Your task to perform on an android device: Search for the best rated headphones on amazon.com Image 0: 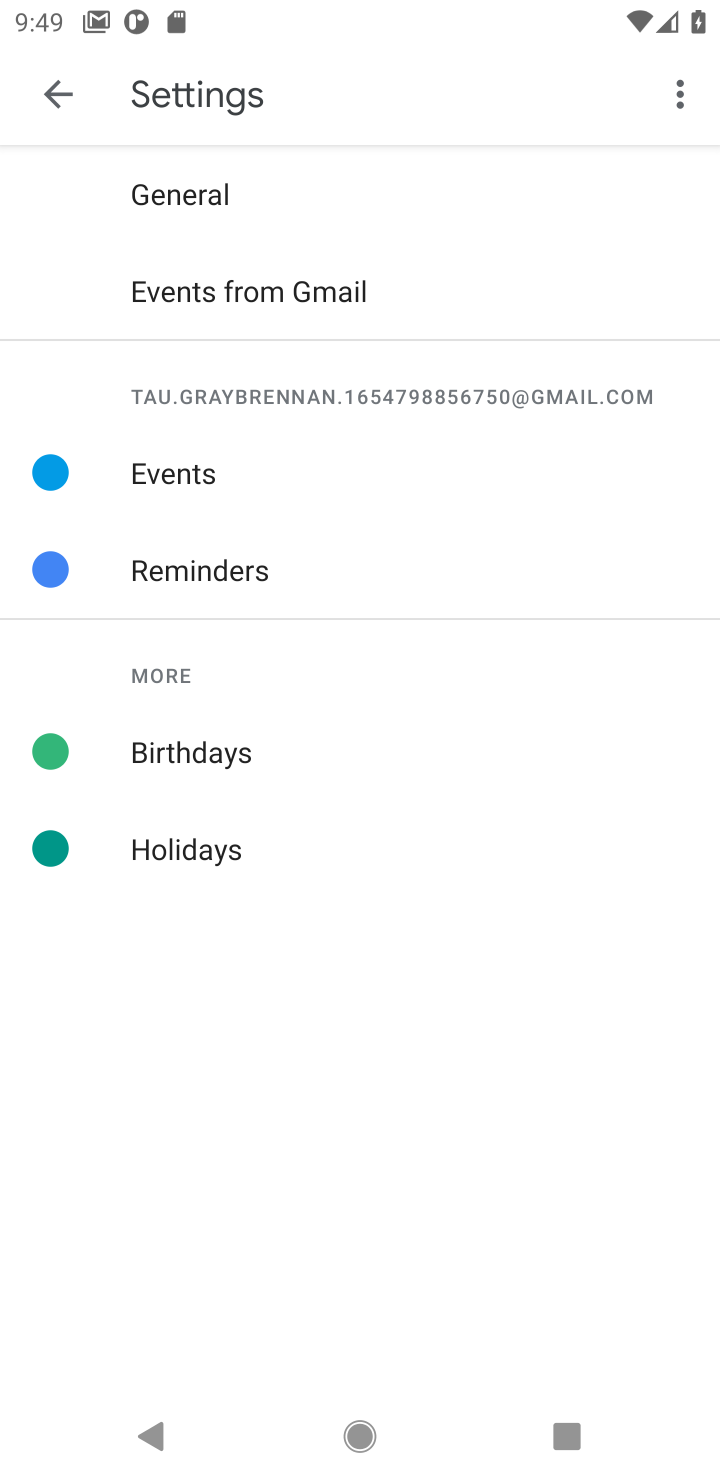
Step 0: press home button
Your task to perform on an android device: Search for the best rated headphones on amazon.com Image 1: 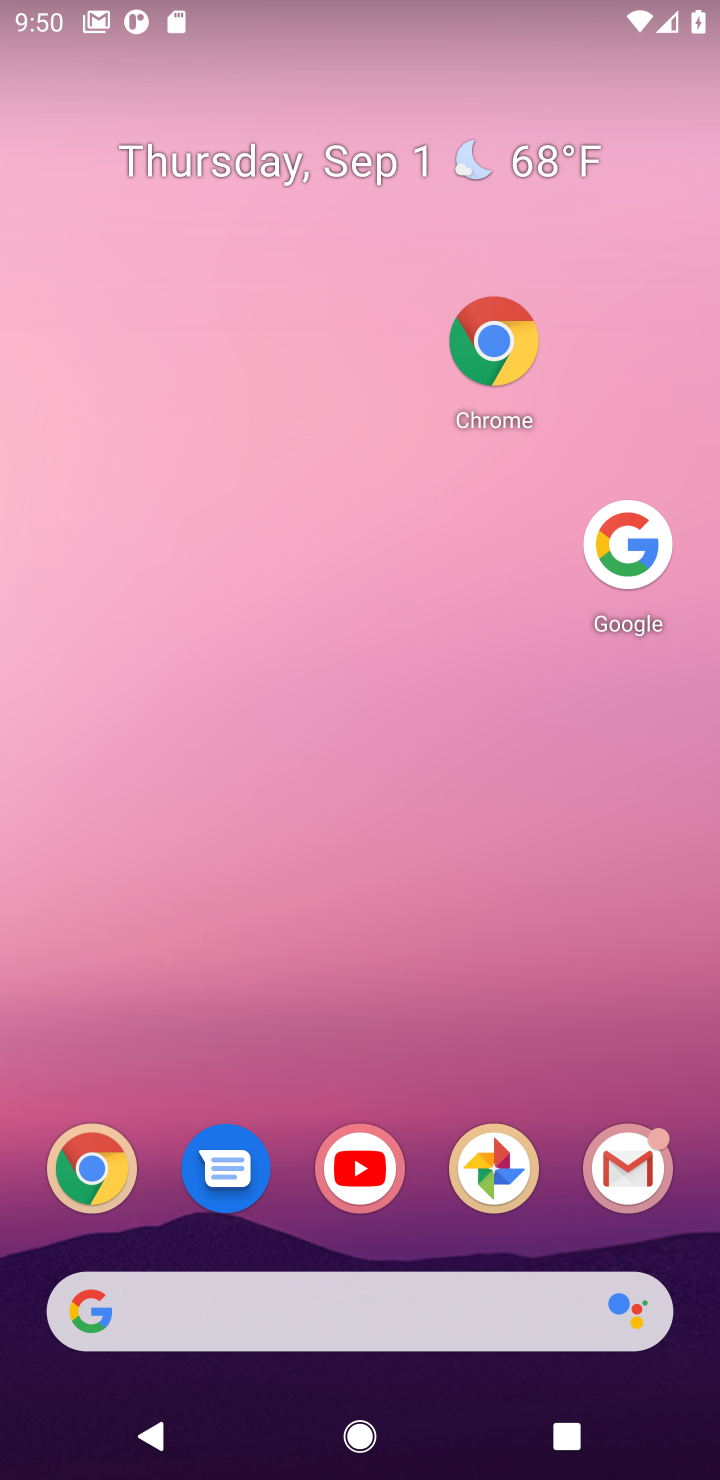
Step 1: drag from (322, 1057) to (335, 475)
Your task to perform on an android device: Search for the best rated headphones on amazon.com Image 2: 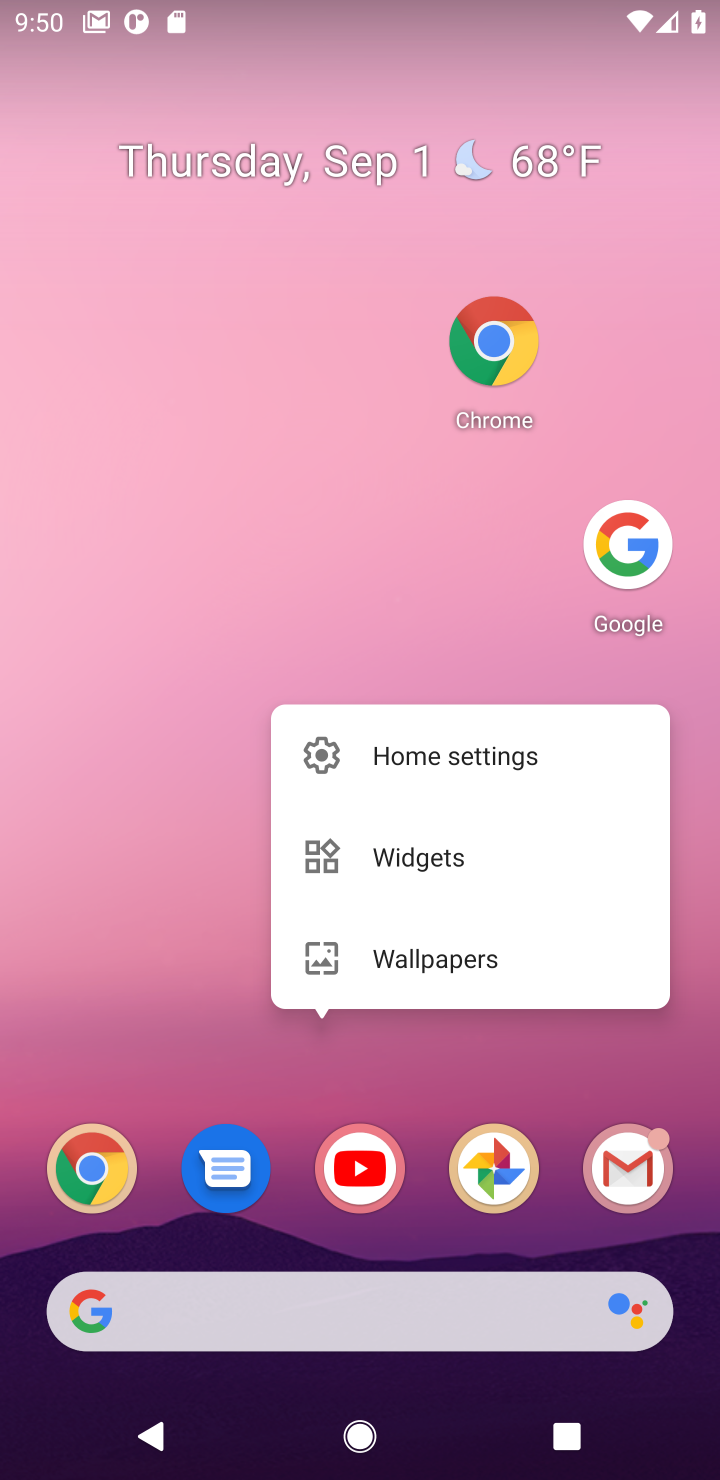
Step 2: click (639, 515)
Your task to perform on an android device: Search for the best rated headphones on amazon.com Image 3: 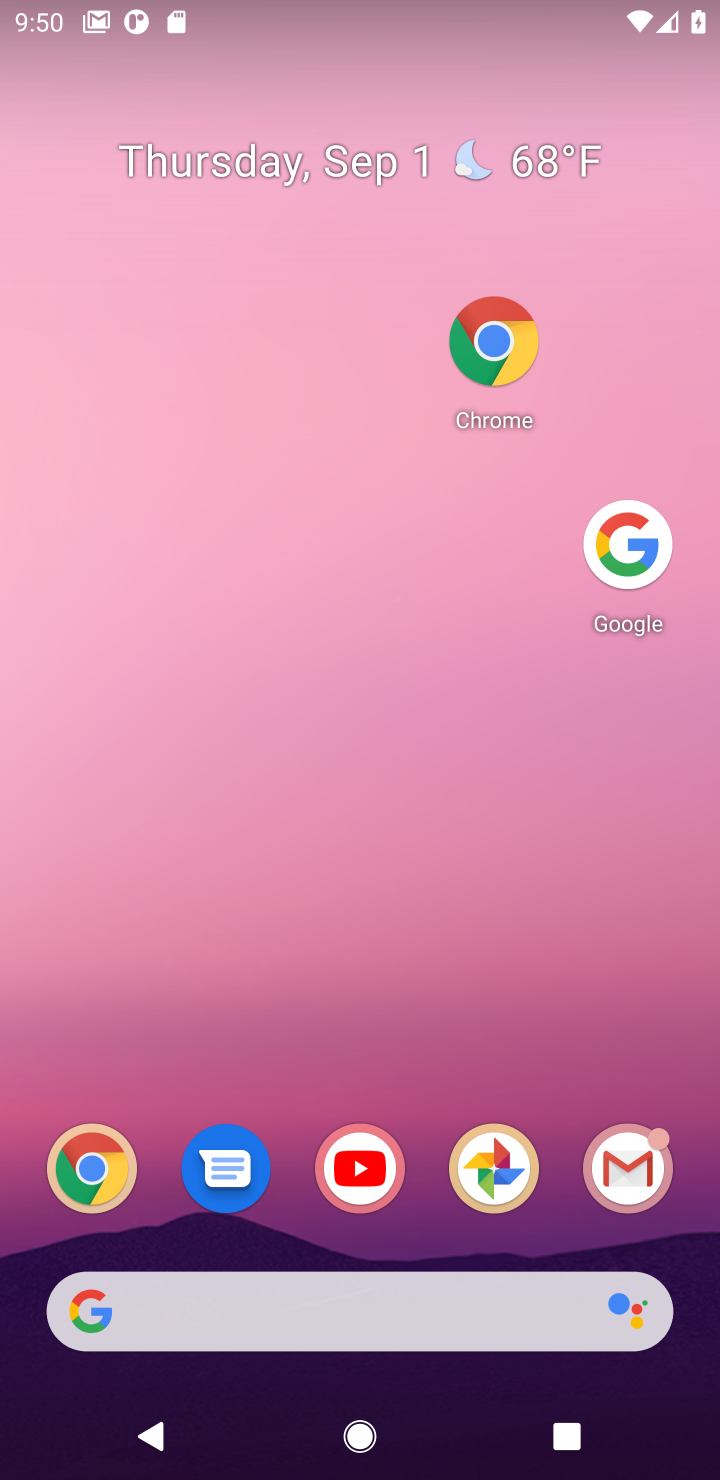
Step 3: click (615, 546)
Your task to perform on an android device: Search for the best rated headphones on amazon.com Image 4: 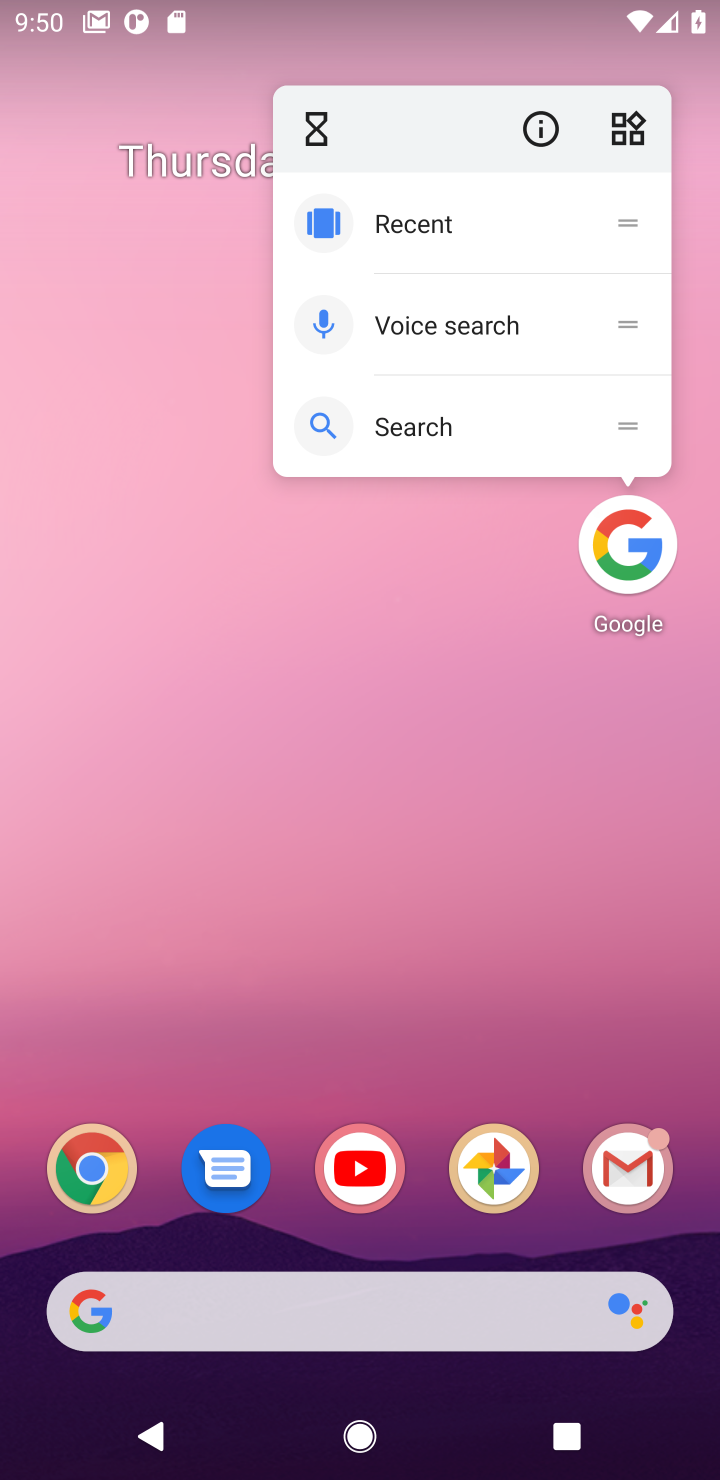
Step 4: click (615, 546)
Your task to perform on an android device: Search for the best rated headphones on amazon.com Image 5: 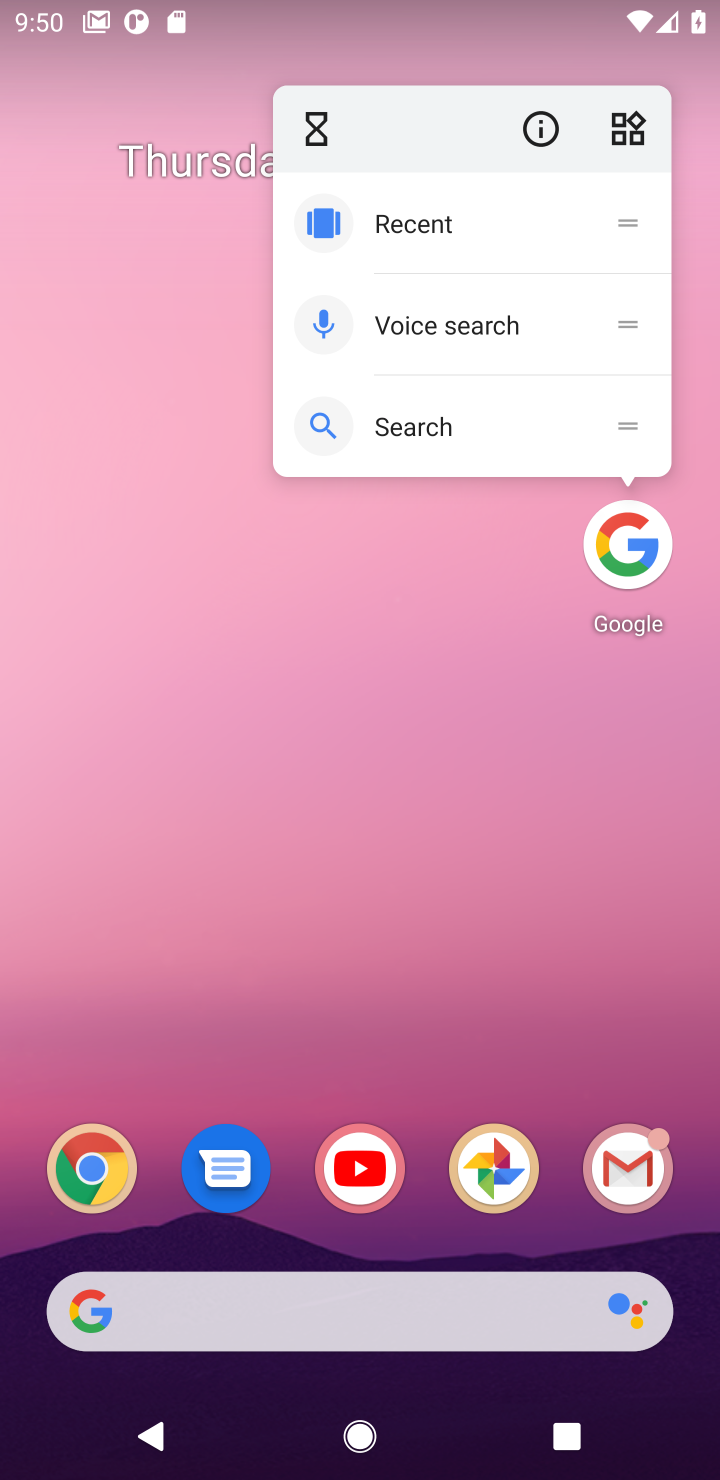
Step 5: click (601, 553)
Your task to perform on an android device: Search for the best rated headphones on amazon.com Image 6: 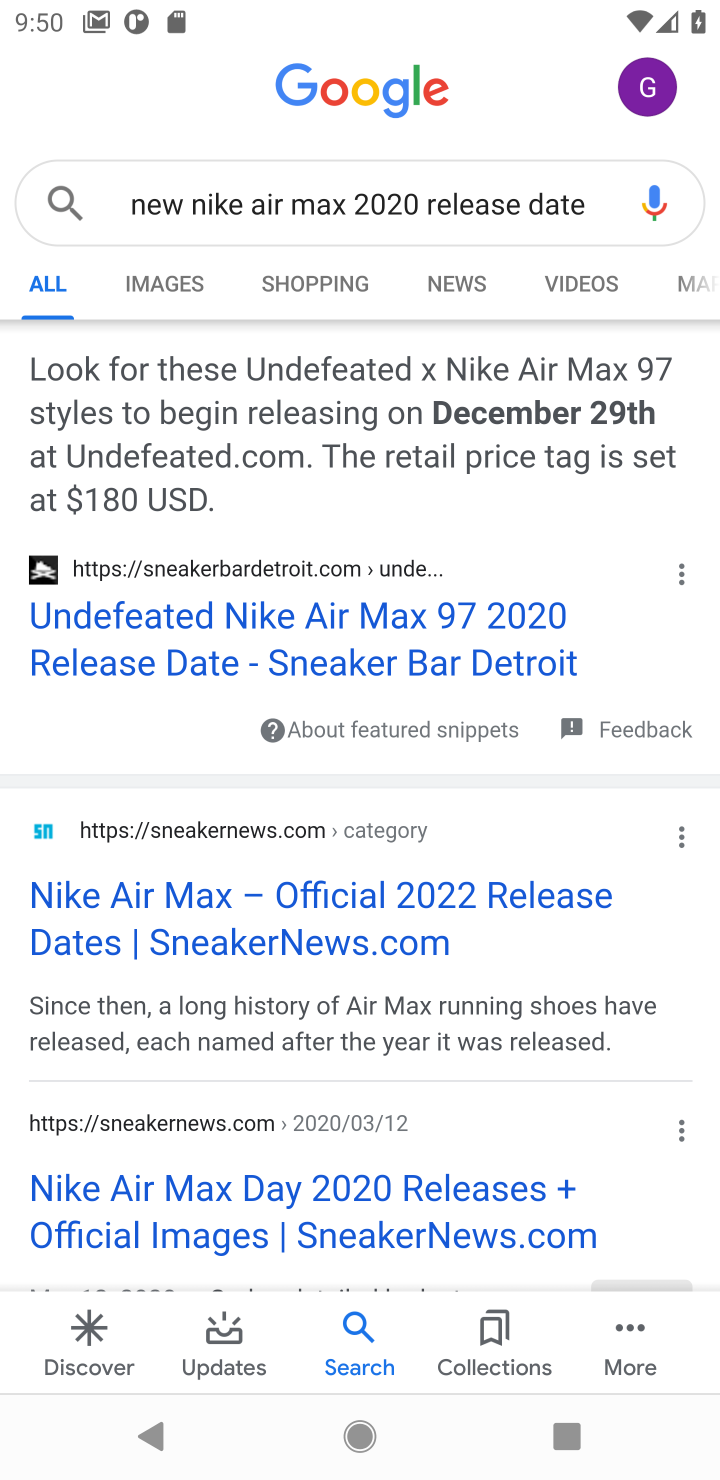
Step 6: click (577, 180)
Your task to perform on an android device: Search for the best rated headphones on amazon.com Image 7: 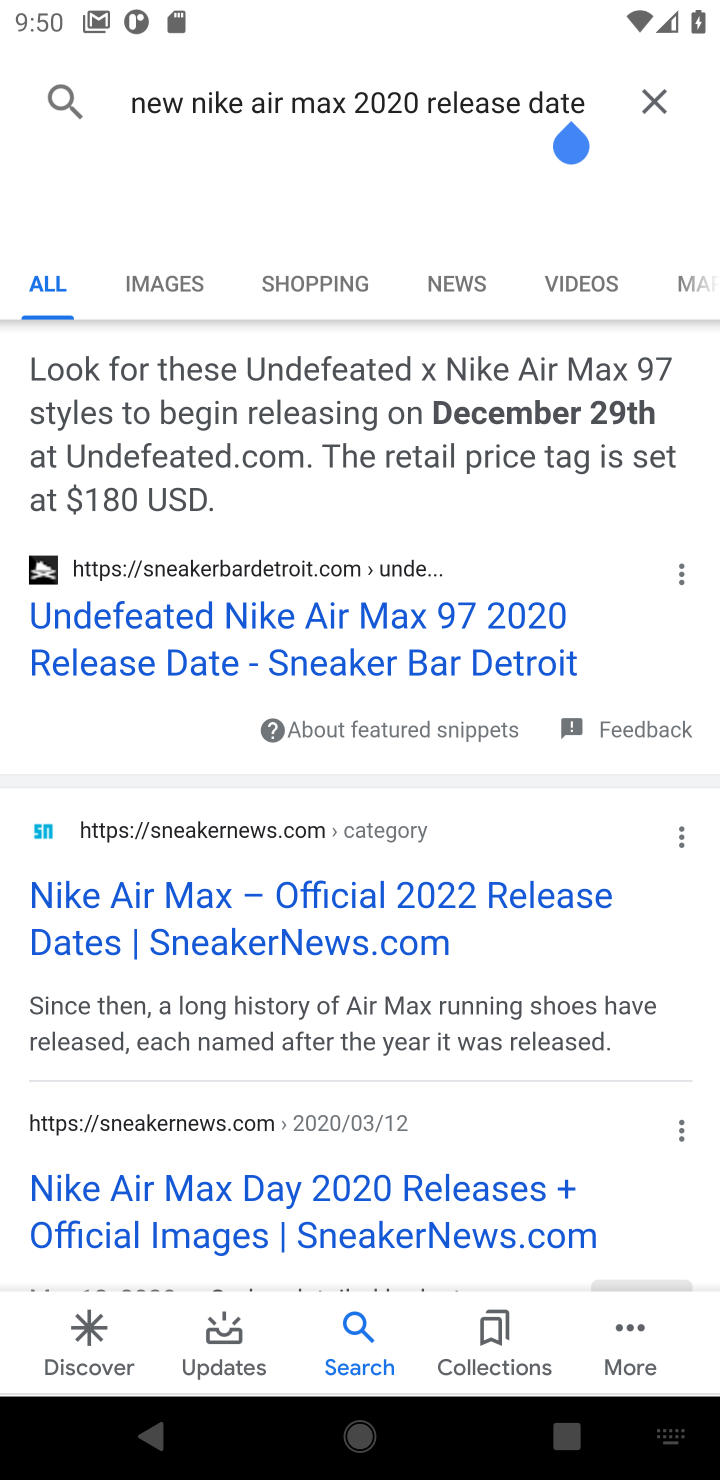
Step 7: click (652, 102)
Your task to perform on an android device: Search for the best rated headphones on amazon.com Image 8: 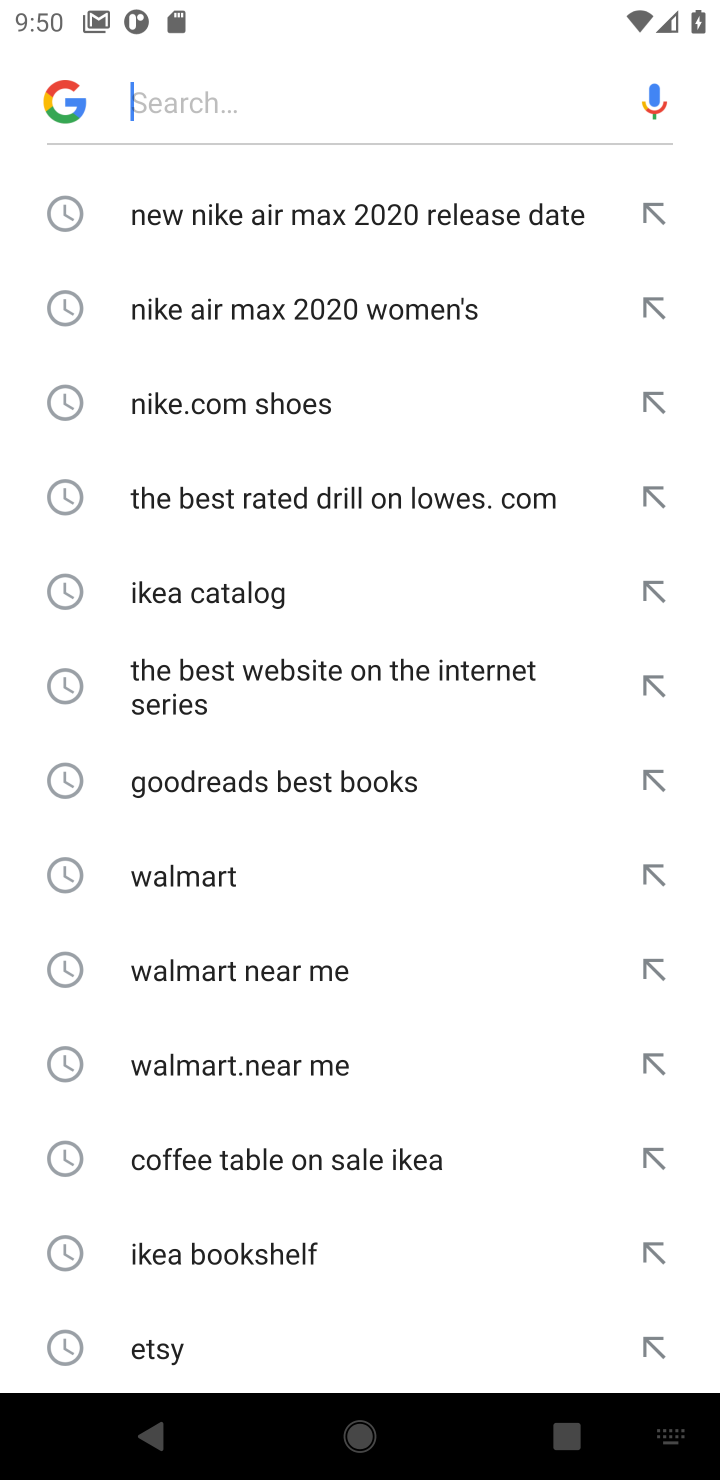
Step 8: drag from (301, 1148) to (463, 339)
Your task to perform on an android device: Search for the best rated headphones on amazon.com Image 9: 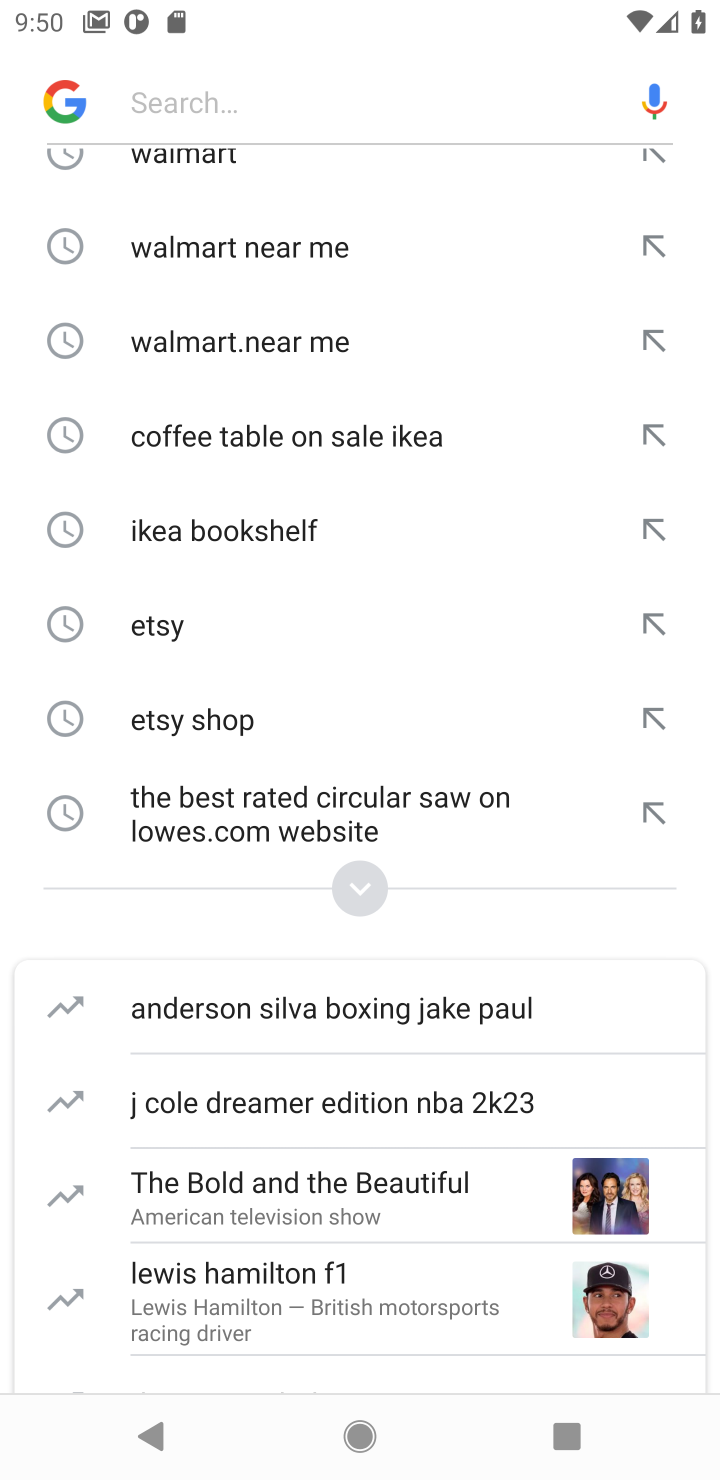
Step 9: drag from (191, 1058) to (210, 858)
Your task to perform on an android device: Search for the best rated headphones on amazon.com Image 10: 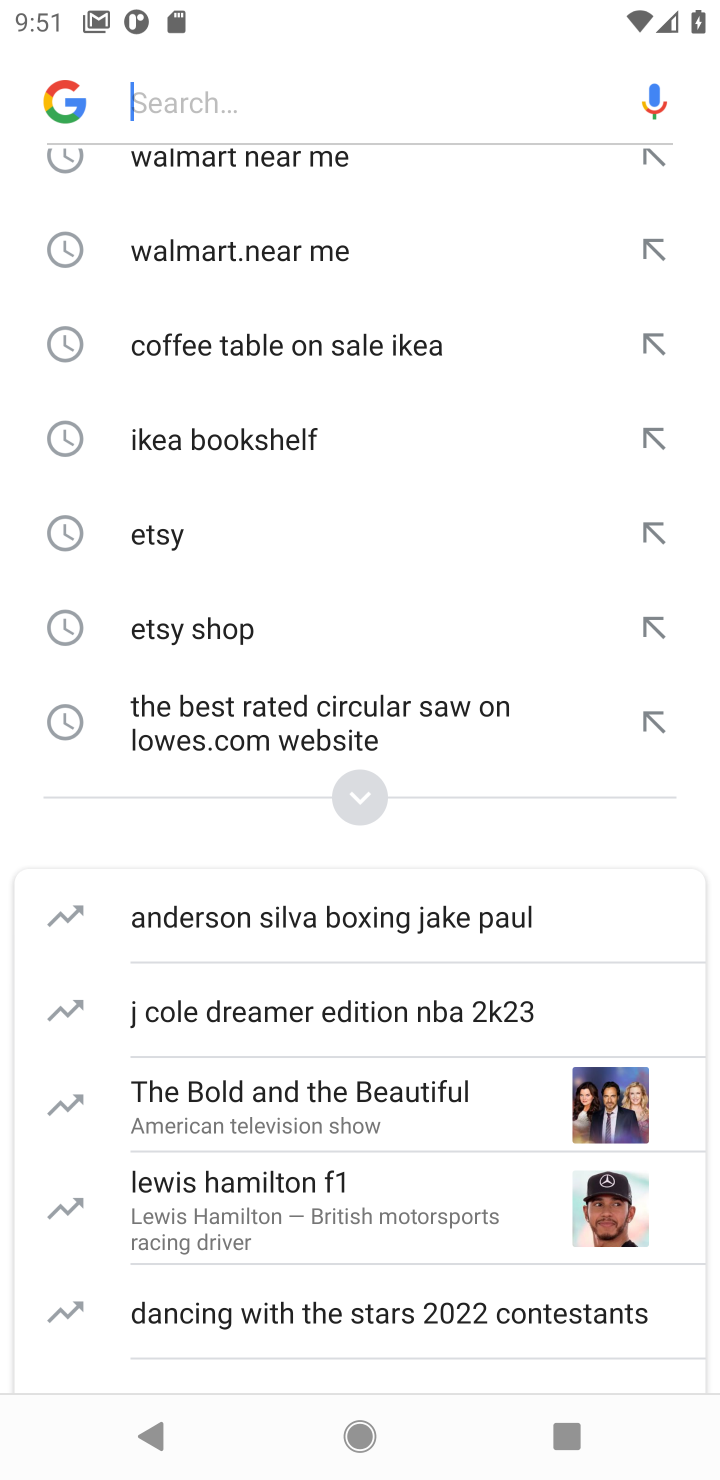
Step 10: click (337, 785)
Your task to perform on an android device: Search for the best rated headphones on amazon.com Image 11: 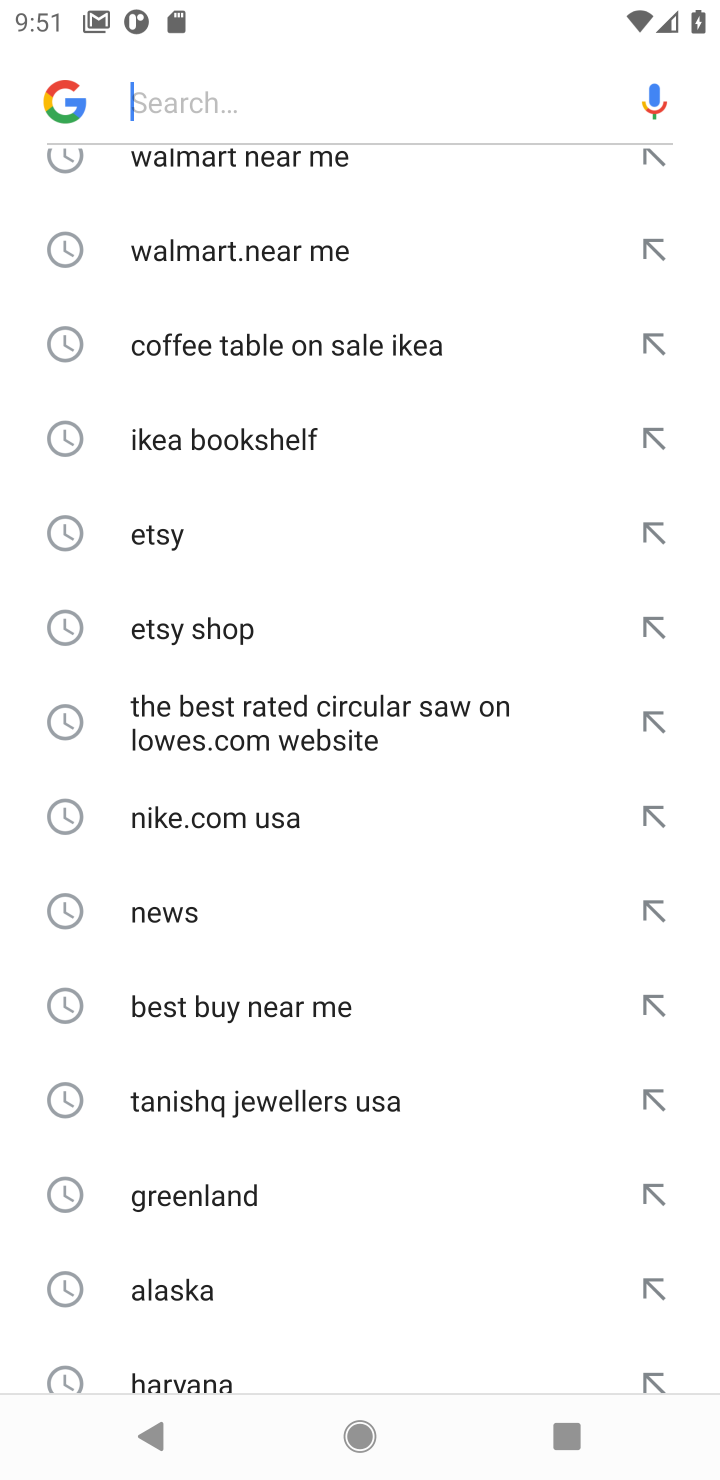
Step 11: drag from (288, 1249) to (437, 591)
Your task to perform on an android device: Search for the best rated headphones on amazon.com Image 12: 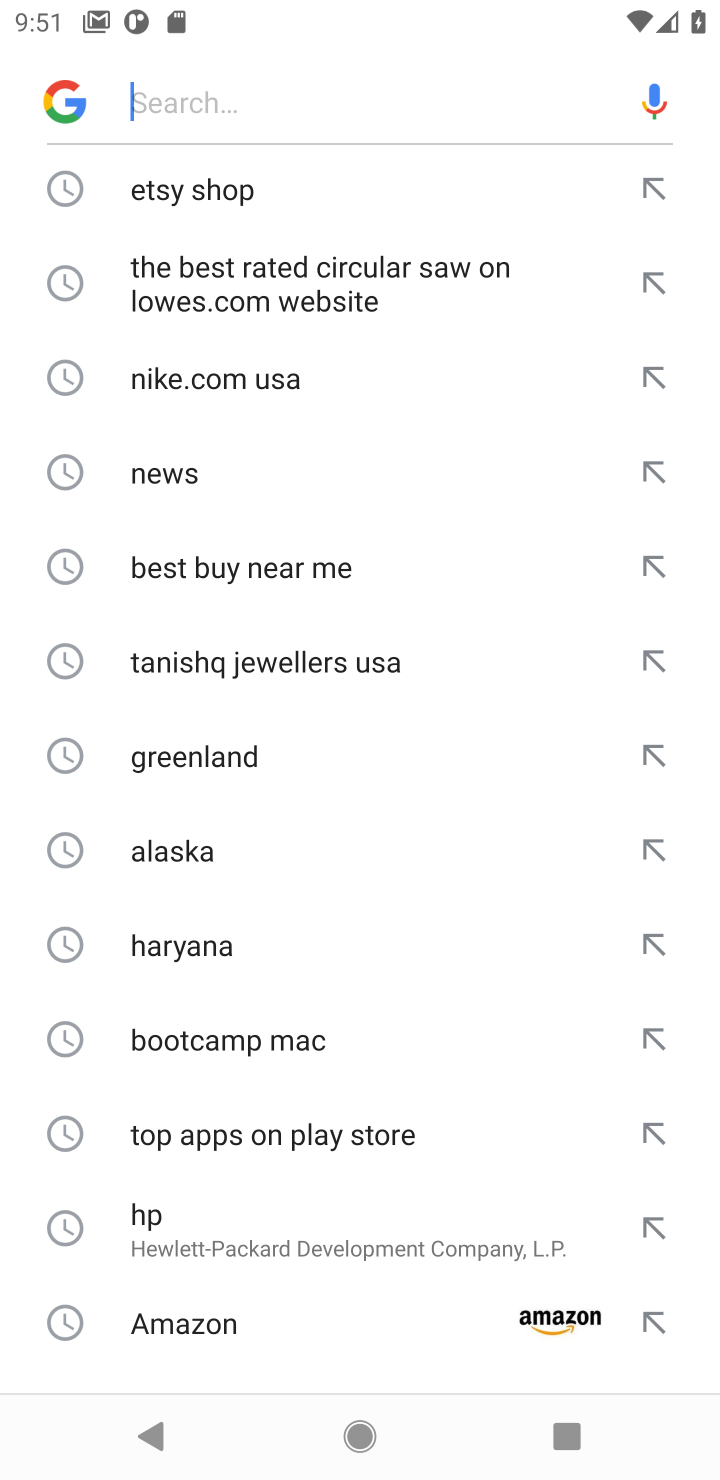
Step 12: click (196, 1333)
Your task to perform on an android device: Search for the best rated headphones on amazon.com Image 13: 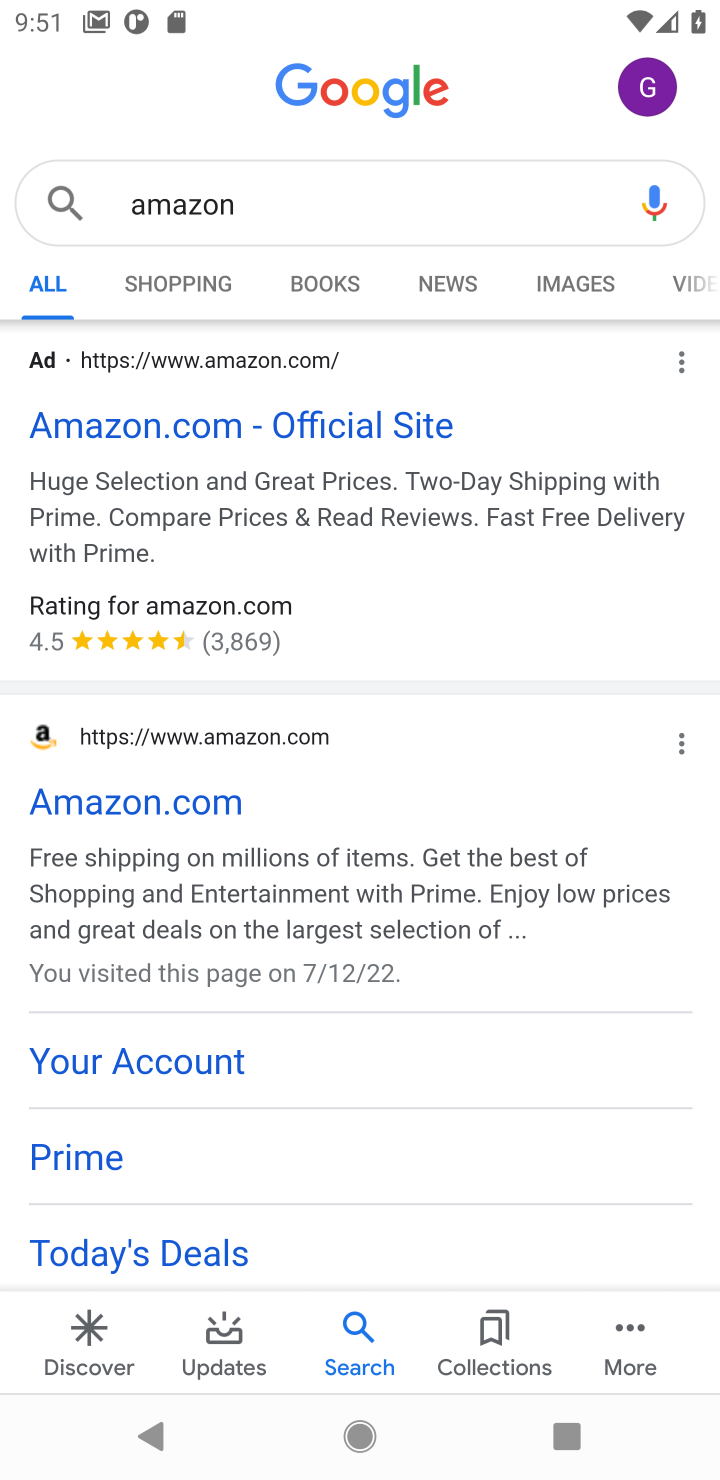
Step 13: click (159, 804)
Your task to perform on an android device: Search for the best rated headphones on amazon.com Image 14: 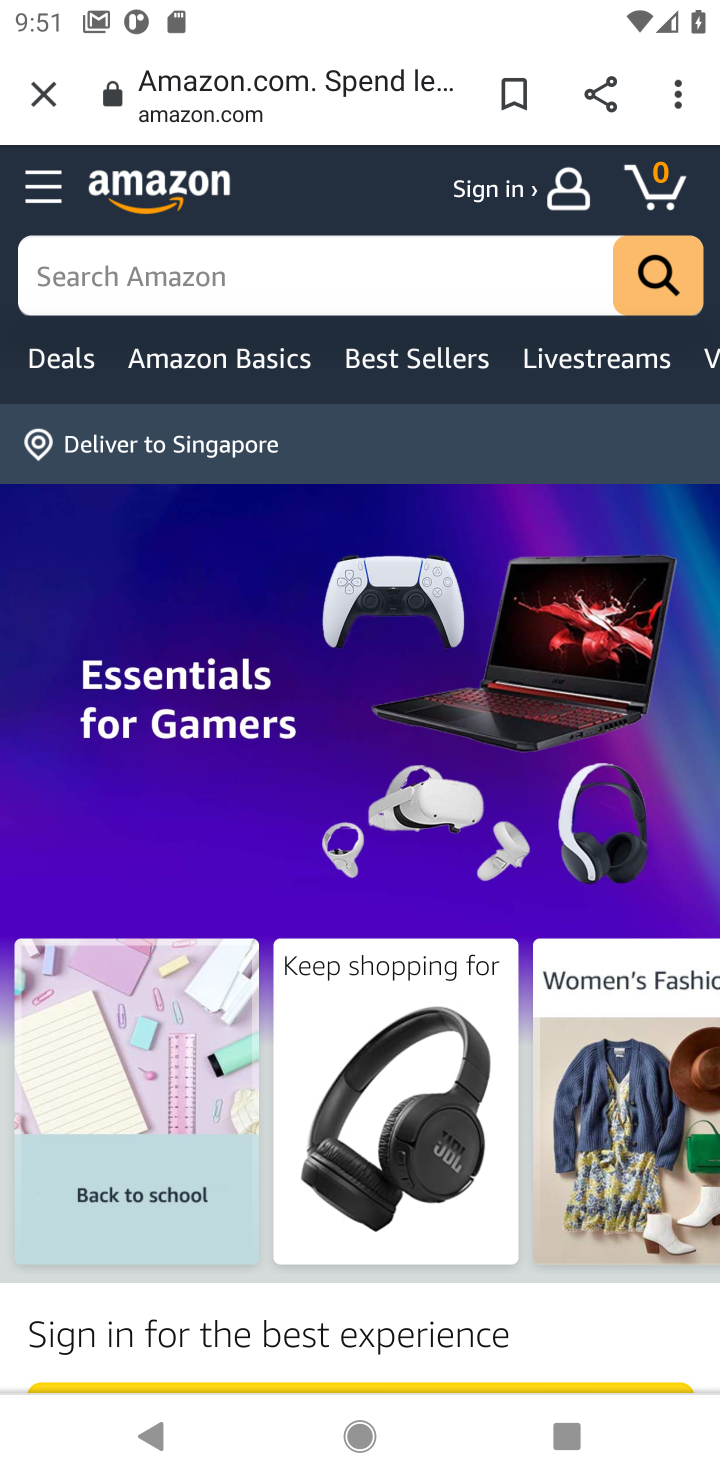
Step 14: click (446, 241)
Your task to perform on an android device: Search for the best rated headphones on amazon.com Image 15: 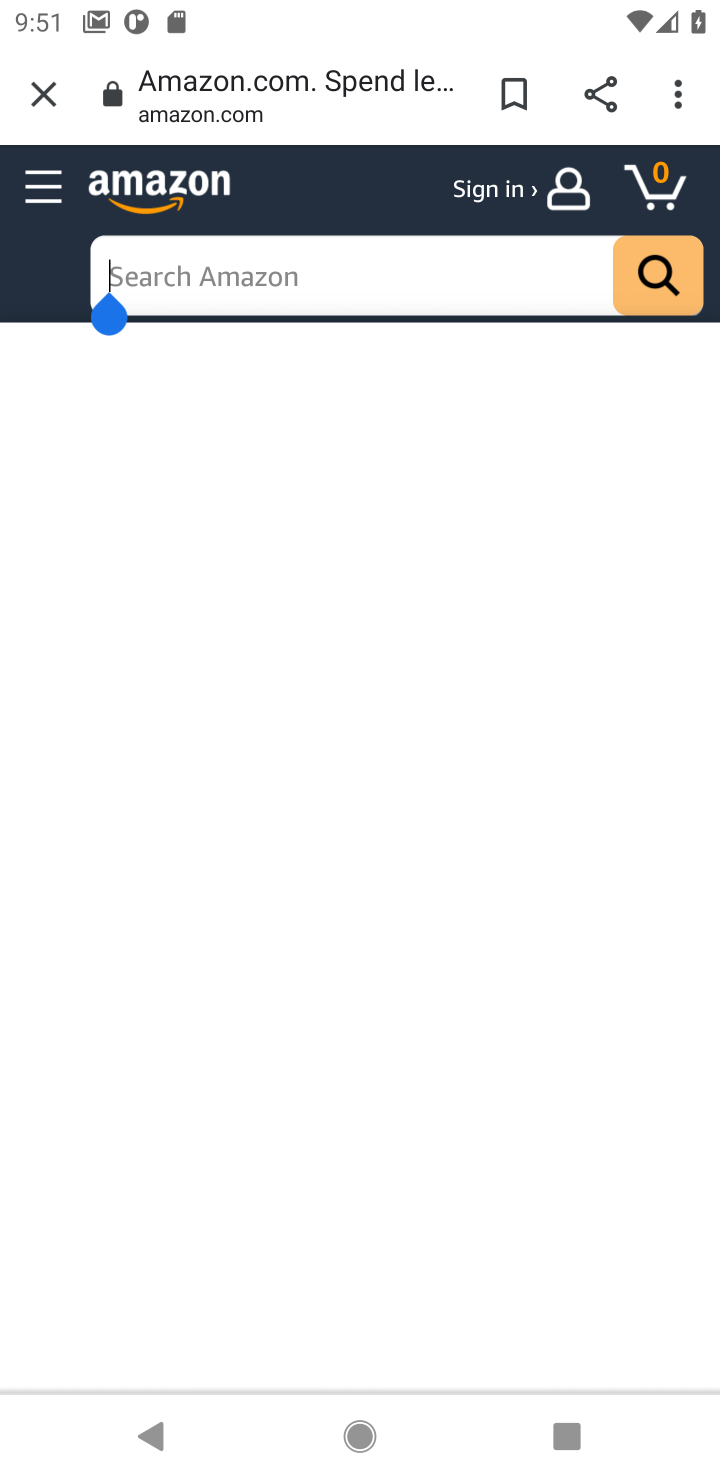
Step 15: click (198, 264)
Your task to perform on an android device: Search for the best rated headphones on amazon.com Image 16: 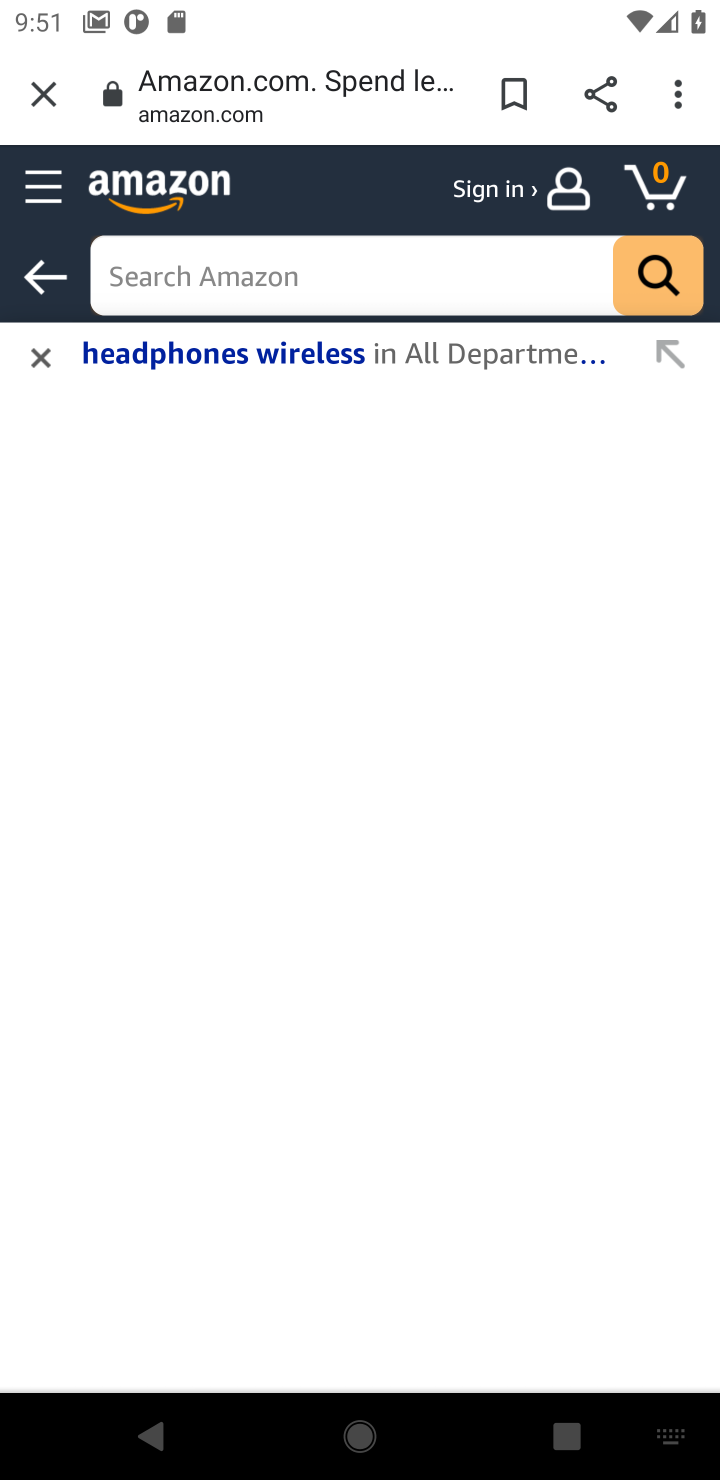
Step 16: type "best rated headphones  "
Your task to perform on an android device: Search for the best rated headphones on amazon.com Image 17: 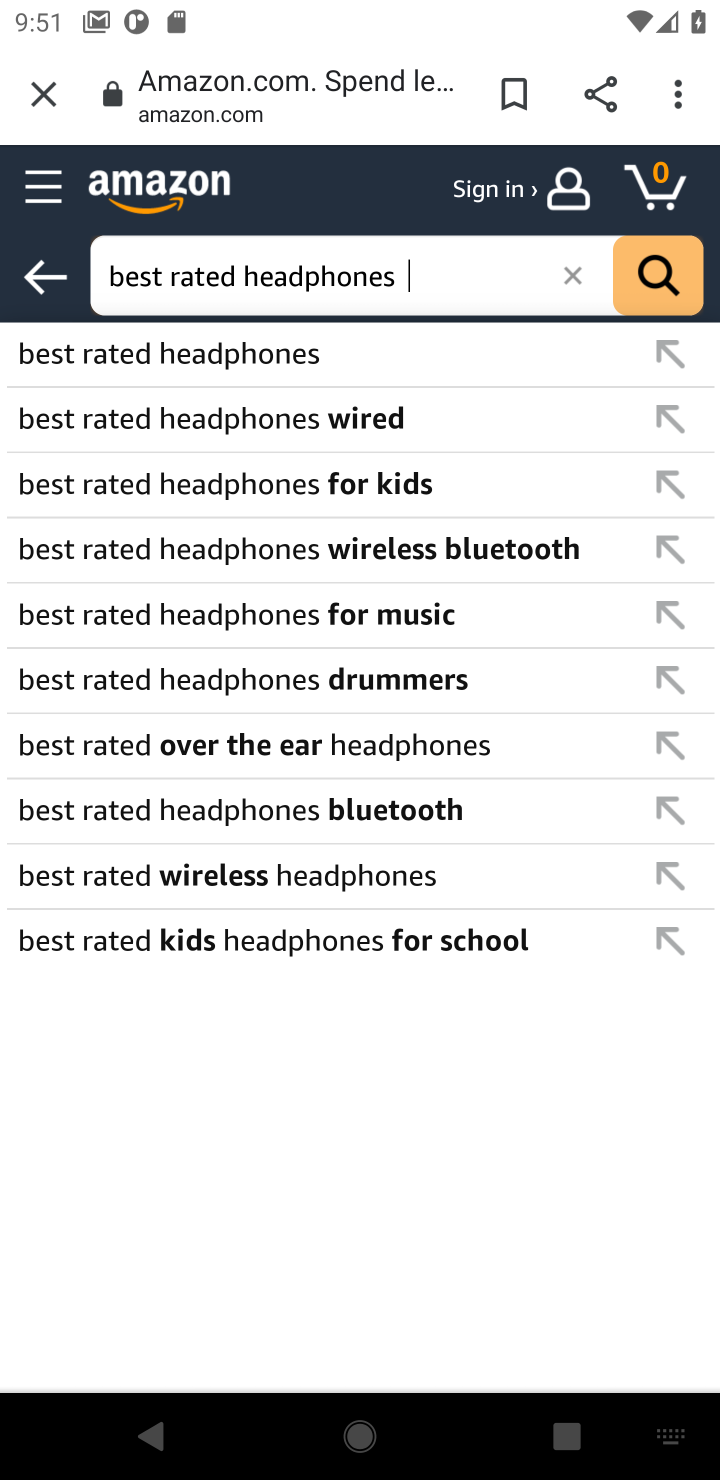
Step 17: click (270, 347)
Your task to perform on an android device: Search for the best rated headphones on amazon.com Image 18: 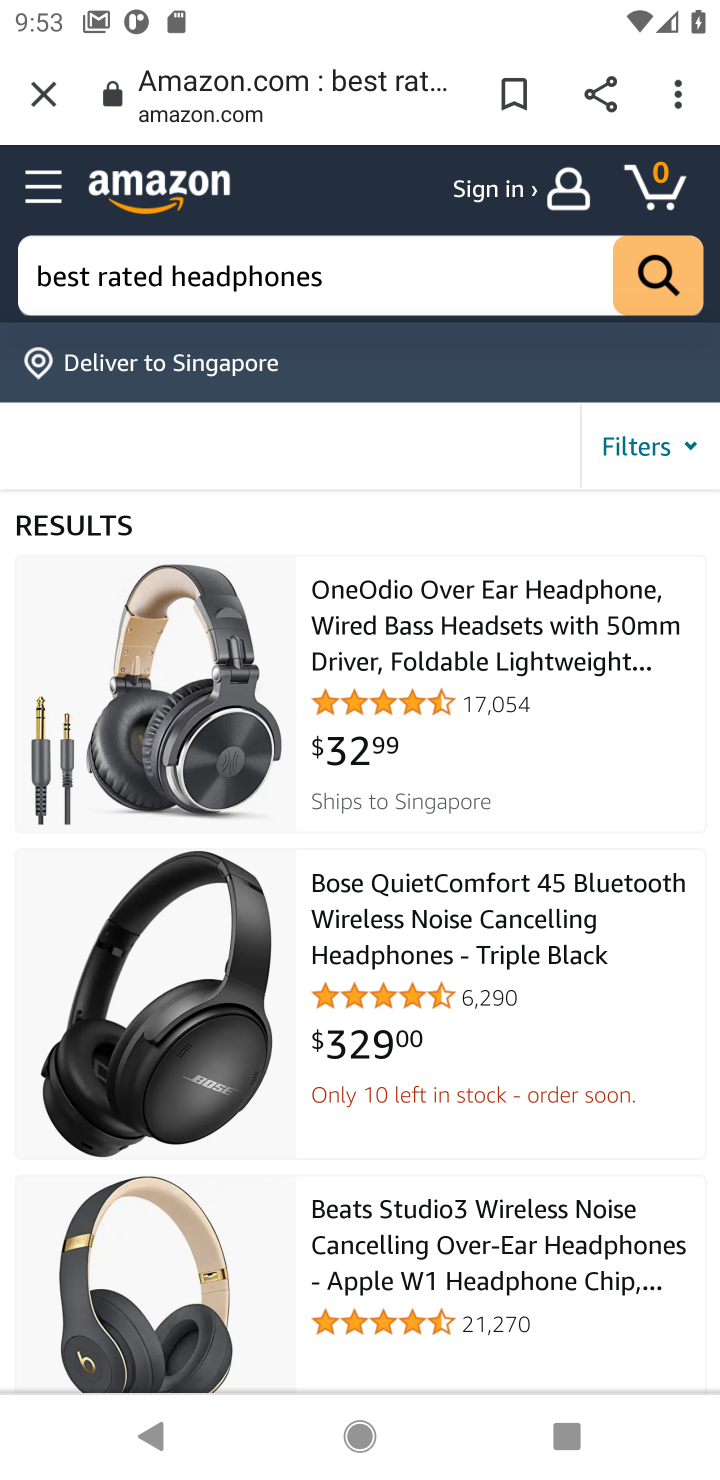
Step 18: task complete